Your task to perform on an android device: Open settings Image 0: 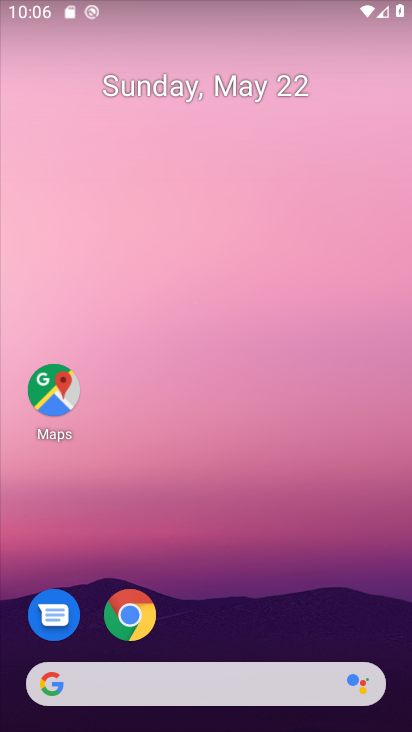
Step 0: drag from (230, 621) to (258, 155)
Your task to perform on an android device: Open settings Image 1: 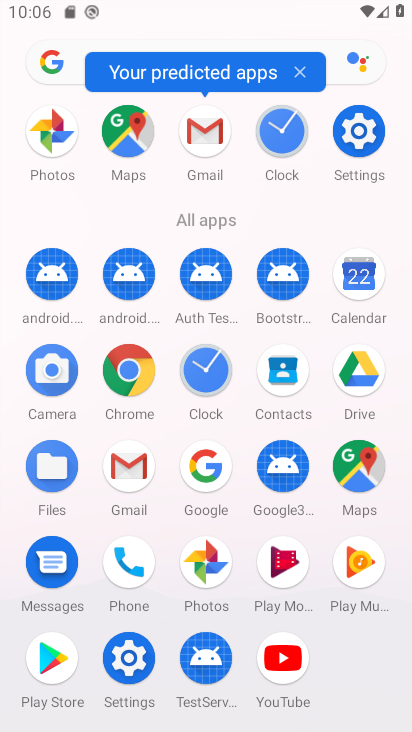
Step 1: click (360, 141)
Your task to perform on an android device: Open settings Image 2: 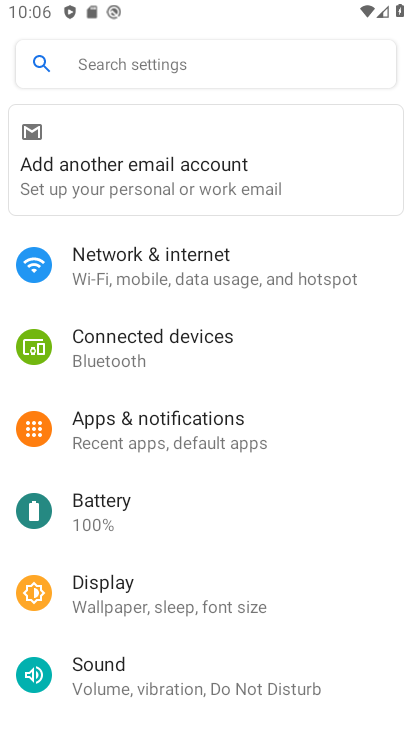
Step 2: task complete